Your task to perform on an android device: Open Reddit.com Image 0: 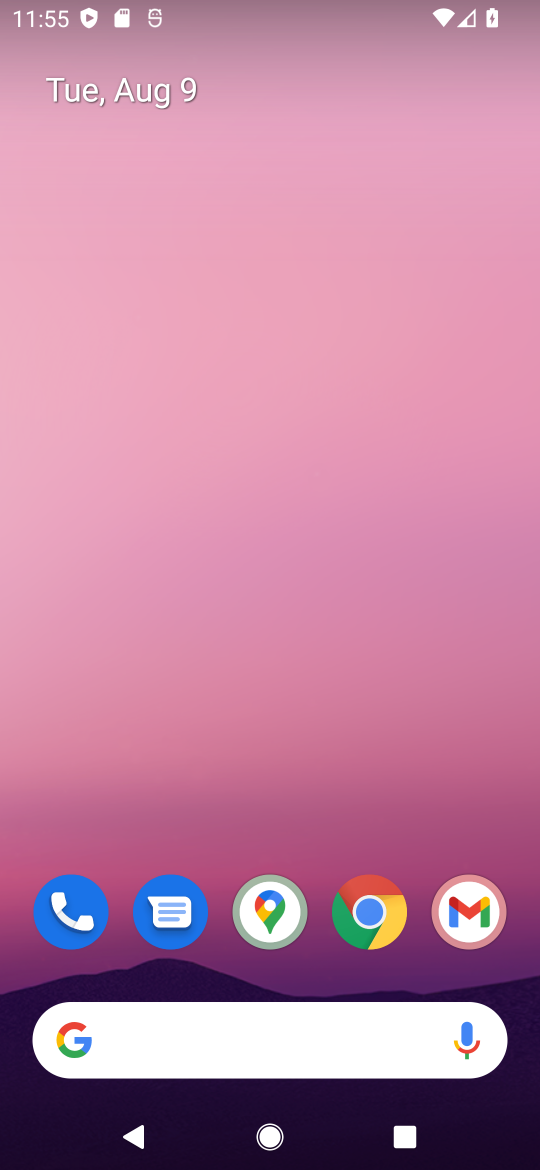
Step 0: drag from (266, 963) to (320, 471)
Your task to perform on an android device: Open Reddit.com Image 1: 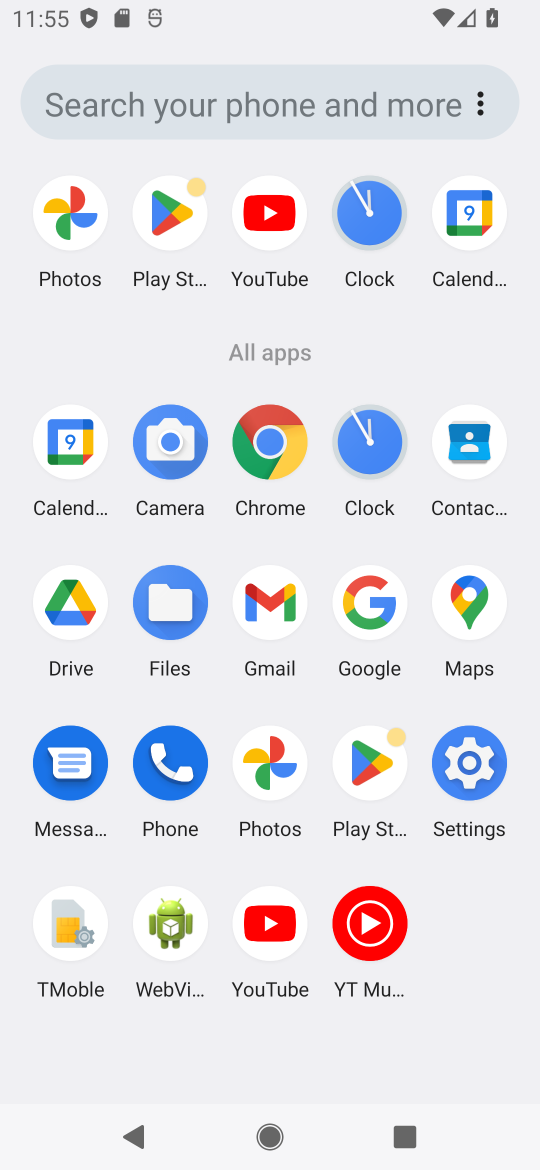
Step 1: click (369, 602)
Your task to perform on an android device: Open Reddit.com Image 2: 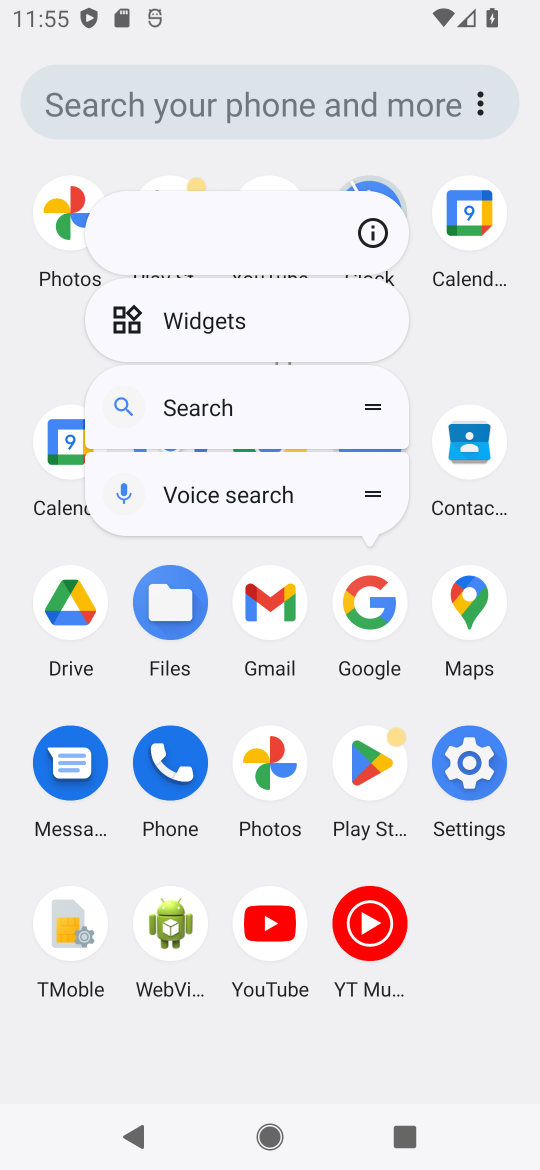
Step 2: click (371, 616)
Your task to perform on an android device: Open Reddit.com Image 3: 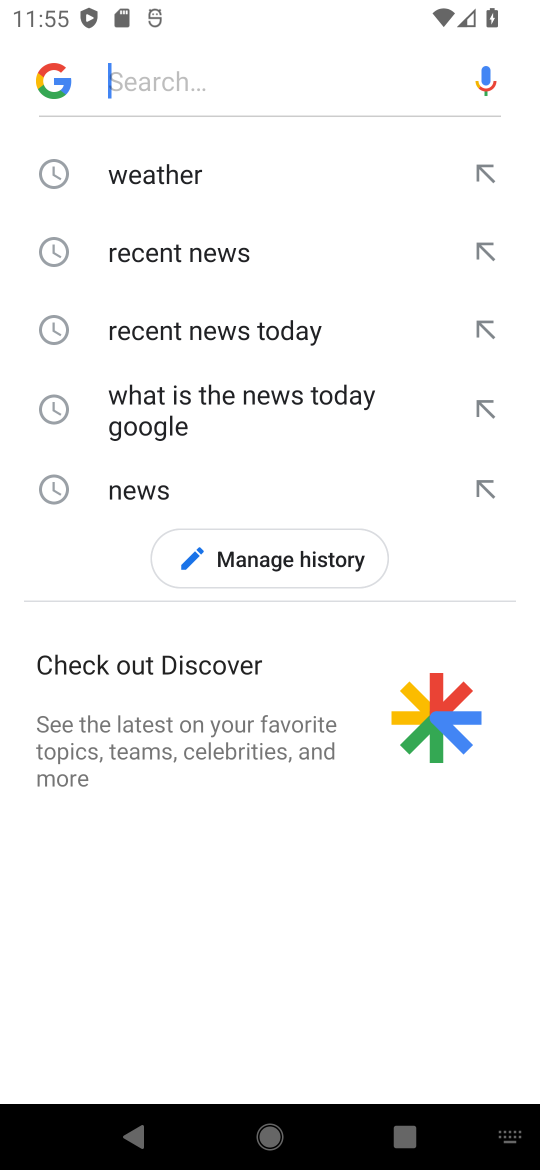
Step 3: click (192, 98)
Your task to perform on an android device: Open Reddit.com Image 4: 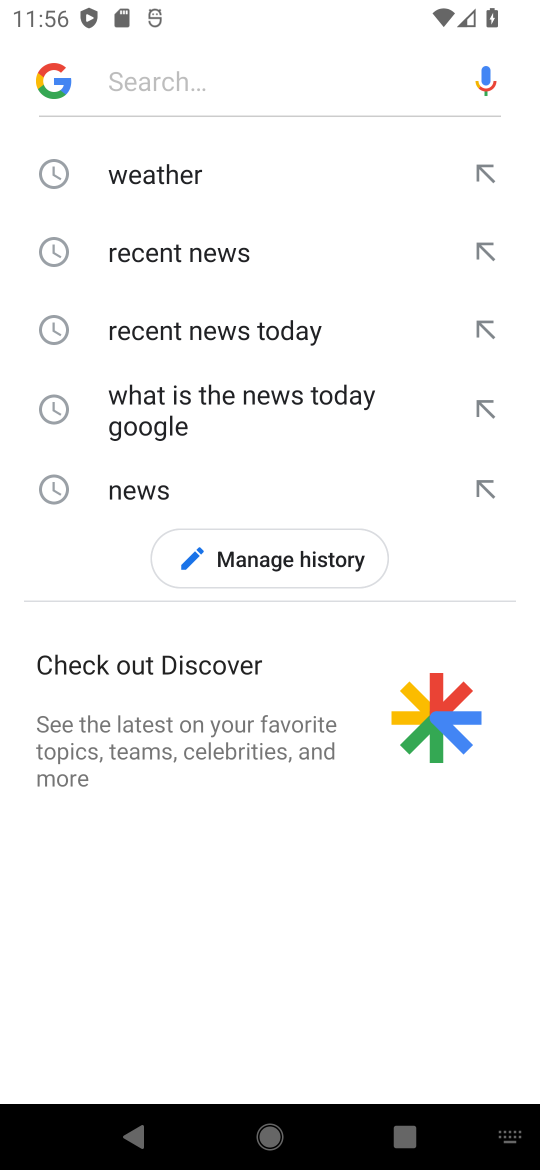
Step 4: type "Reddit.com"
Your task to perform on an android device: Open Reddit.com Image 5: 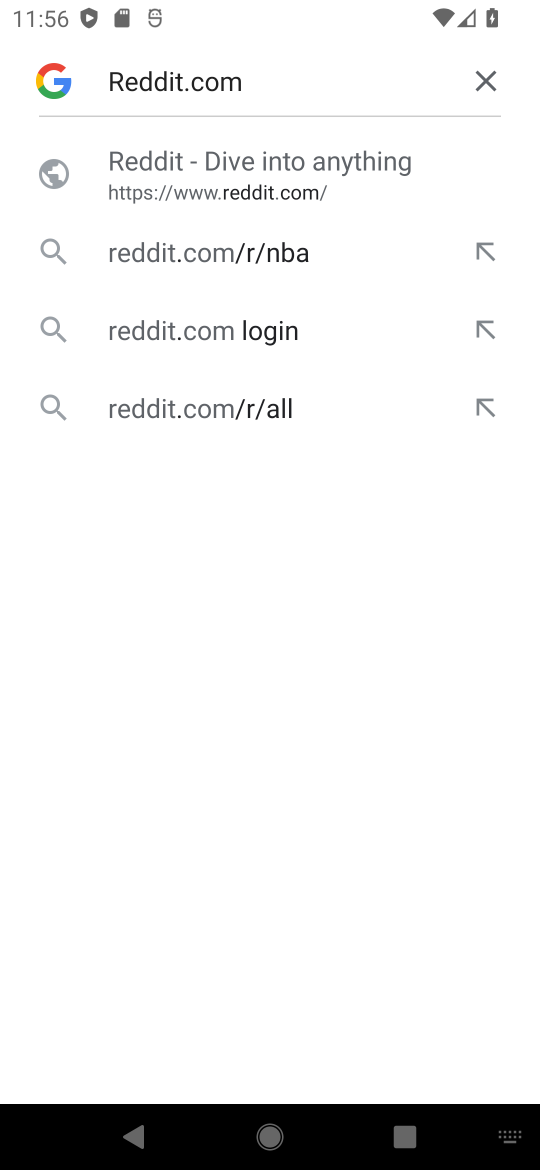
Step 5: click (239, 173)
Your task to perform on an android device: Open Reddit.com Image 6: 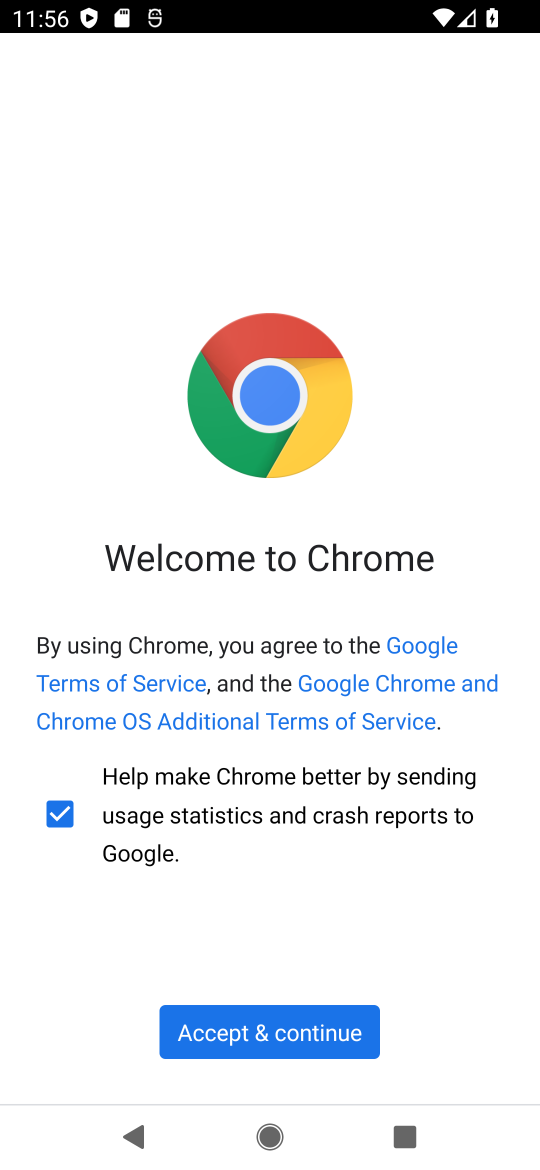
Step 6: click (308, 1037)
Your task to perform on an android device: Open Reddit.com Image 7: 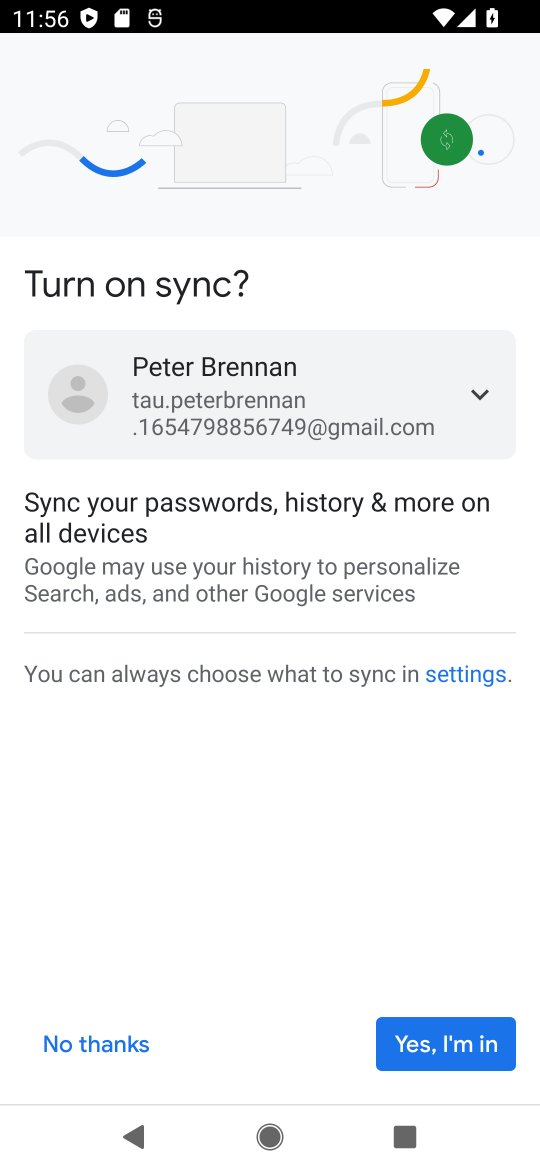
Step 7: click (409, 1066)
Your task to perform on an android device: Open Reddit.com Image 8: 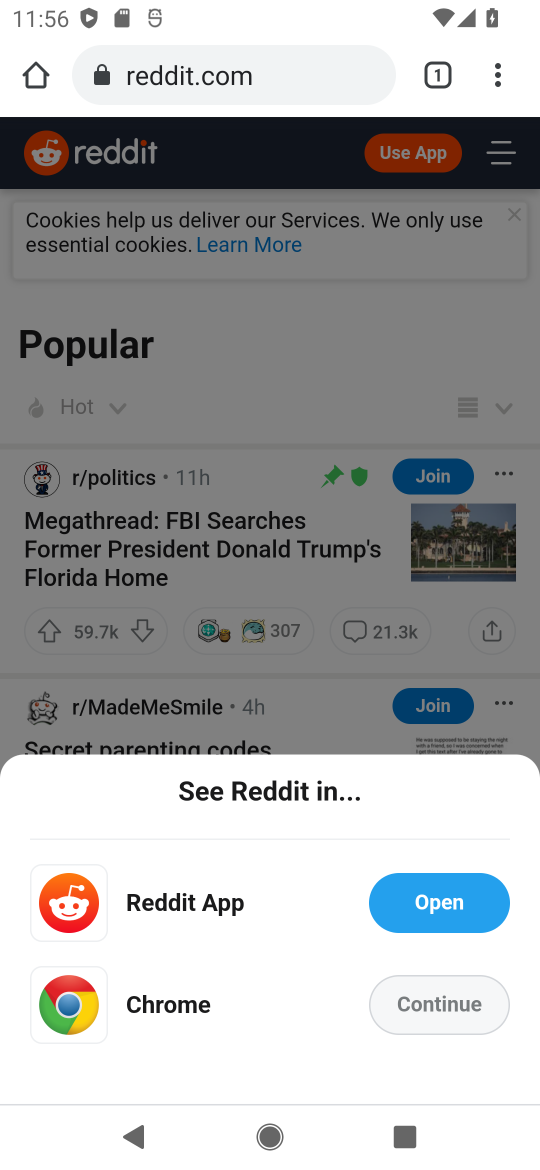
Step 8: click (201, 906)
Your task to perform on an android device: Open Reddit.com Image 9: 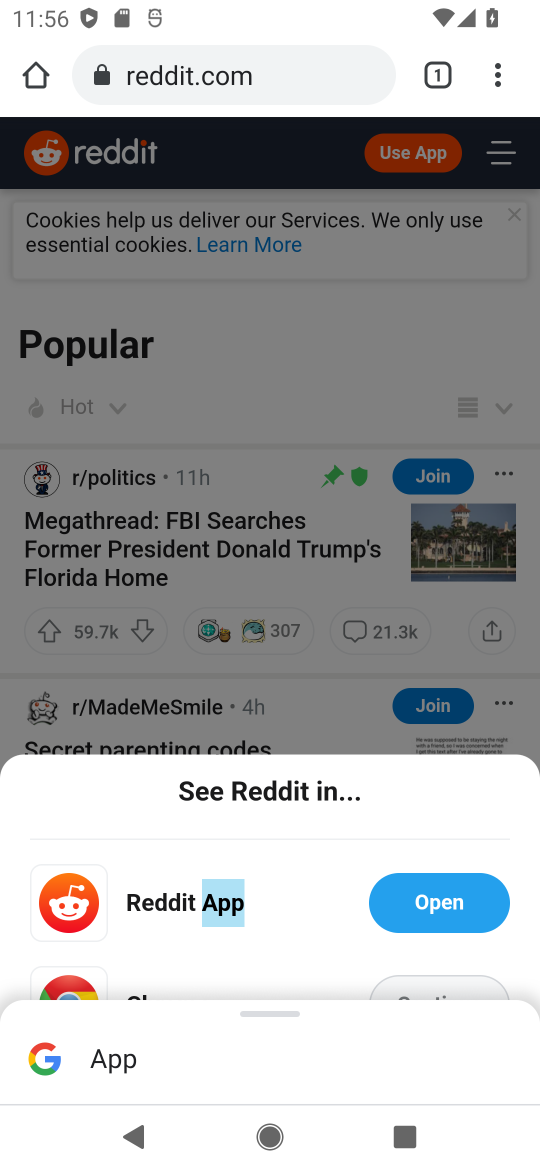
Step 9: click (161, 895)
Your task to perform on an android device: Open Reddit.com Image 10: 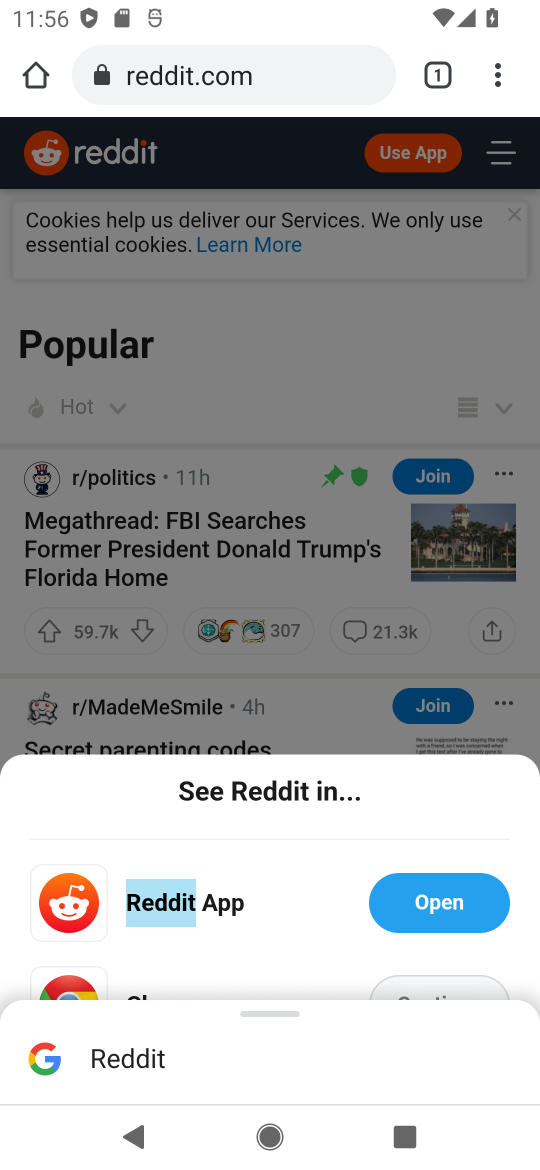
Step 10: click (74, 897)
Your task to perform on an android device: Open Reddit.com Image 11: 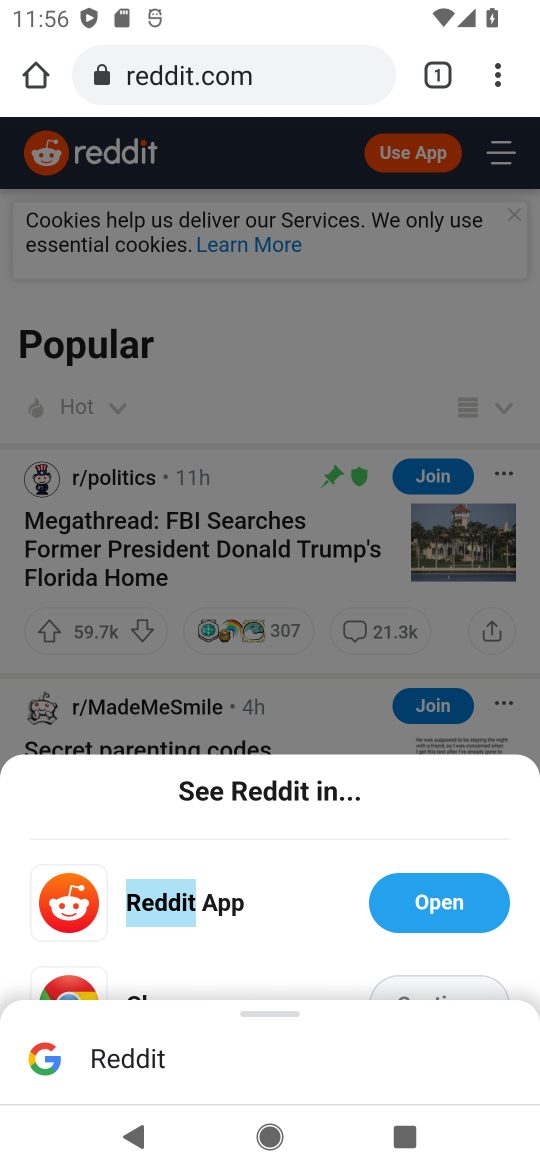
Step 11: click (453, 898)
Your task to perform on an android device: Open Reddit.com Image 12: 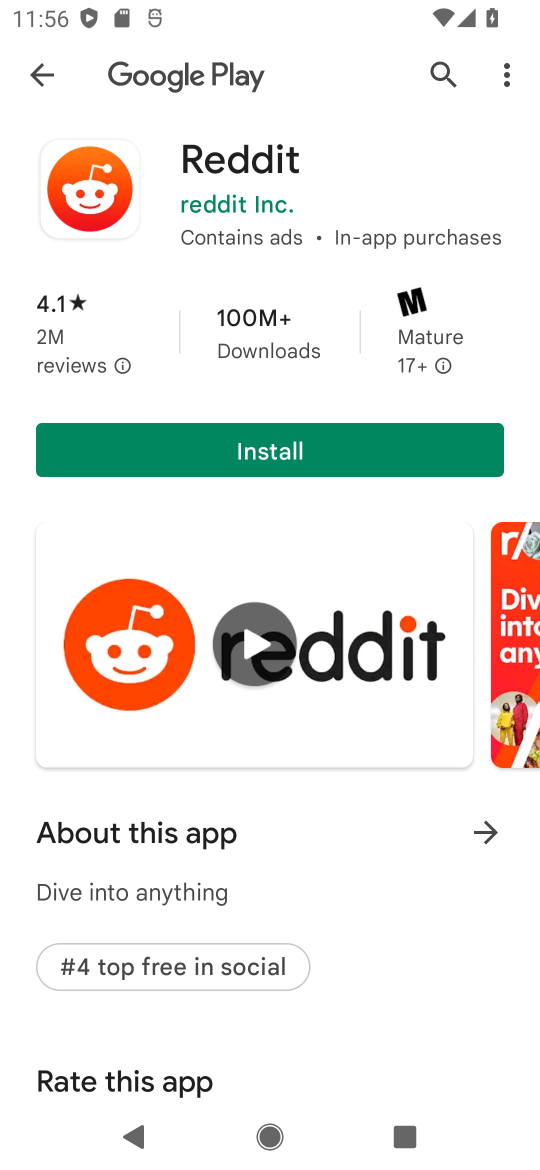
Step 12: task complete